Your task to perform on an android device: What's on my calendar tomorrow? Image 0: 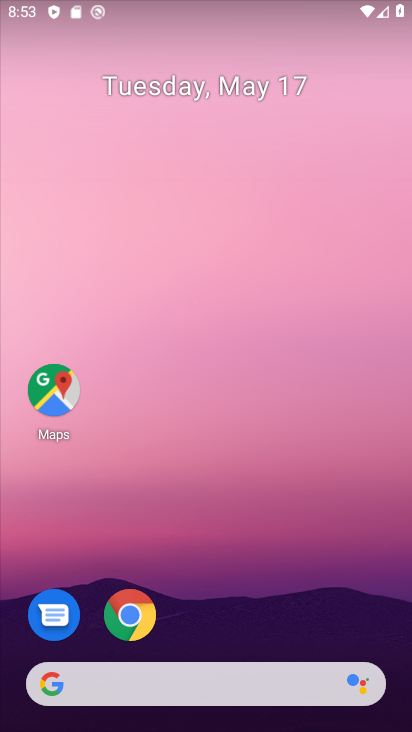
Step 0: drag from (248, 581) to (341, 286)
Your task to perform on an android device: What's on my calendar tomorrow? Image 1: 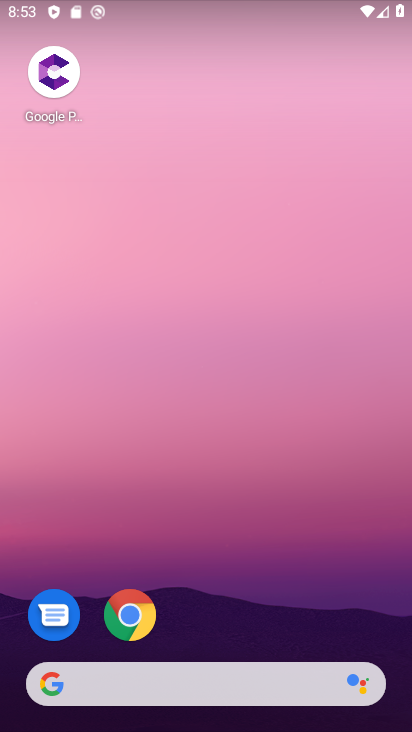
Step 1: drag from (175, 656) to (305, 89)
Your task to perform on an android device: What's on my calendar tomorrow? Image 2: 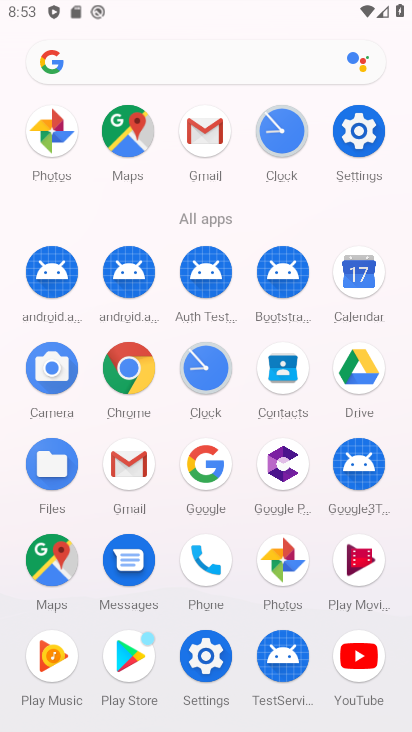
Step 2: click (370, 275)
Your task to perform on an android device: What's on my calendar tomorrow? Image 3: 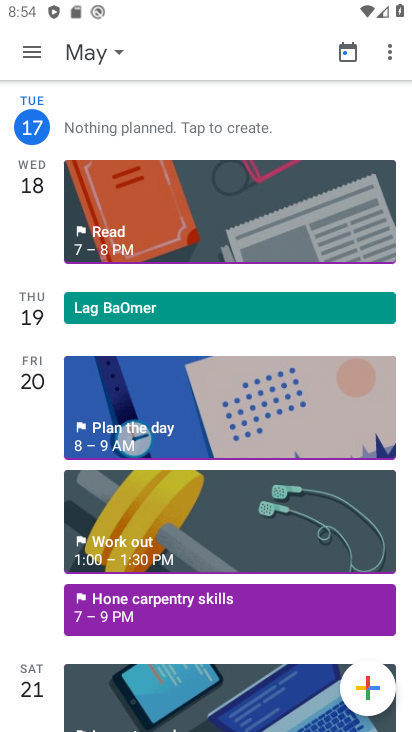
Step 3: click (37, 190)
Your task to perform on an android device: What's on my calendar tomorrow? Image 4: 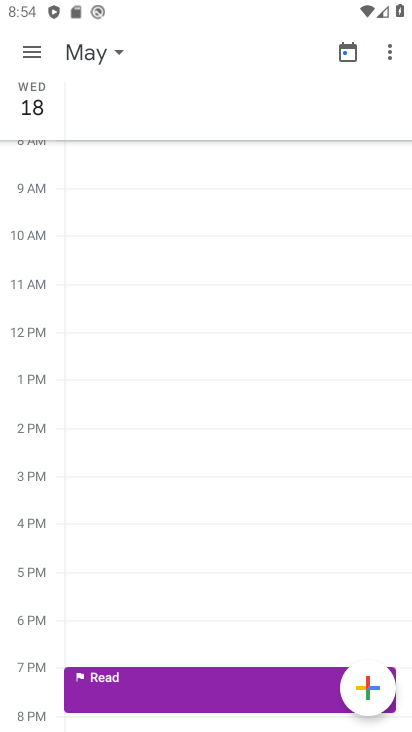
Step 4: task complete